Your task to perform on an android device: star an email in the gmail app Image 0: 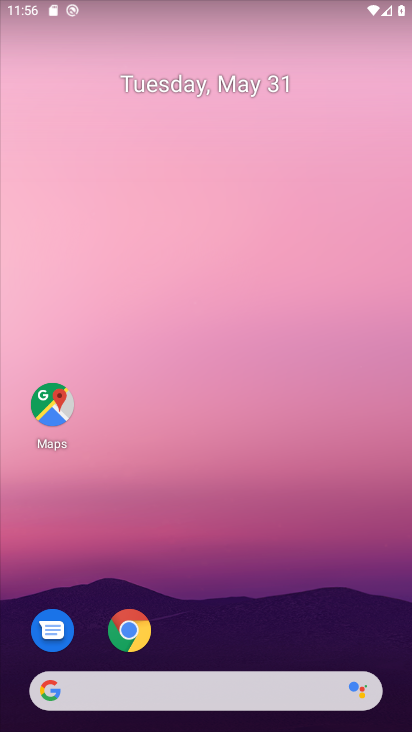
Step 0: drag from (207, 610) to (195, 171)
Your task to perform on an android device: star an email in the gmail app Image 1: 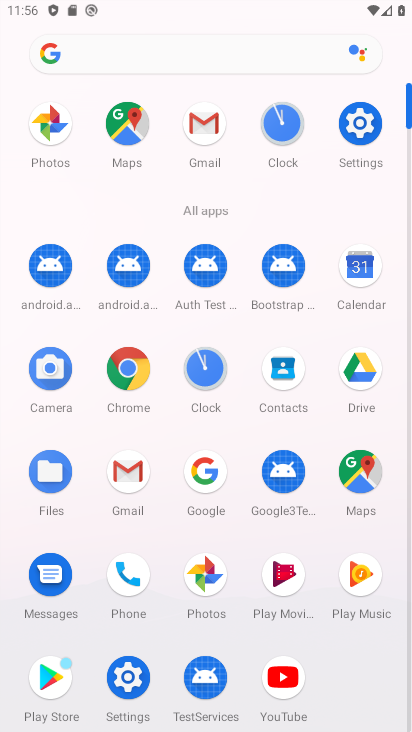
Step 1: click (133, 466)
Your task to perform on an android device: star an email in the gmail app Image 2: 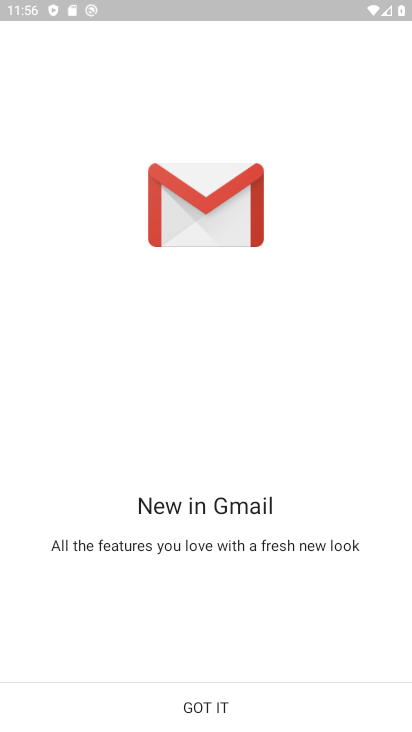
Step 2: click (223, 703)
Your task to perform on an android device: star an email in the gmail app Image 3: 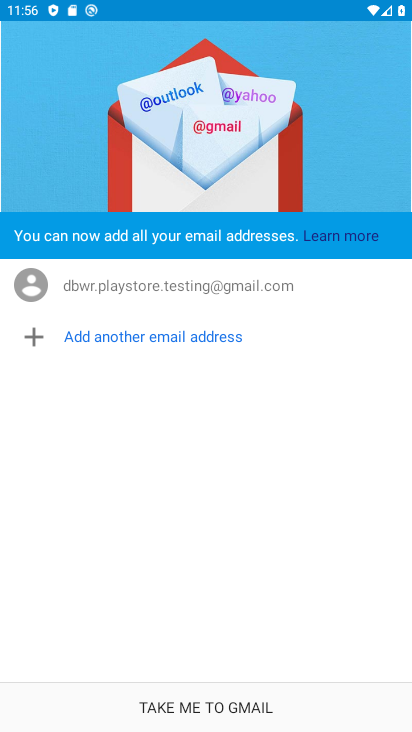
Step 3: click (218, 703)
Your task to perform on an android device: star an email in the gmail app Image 4: 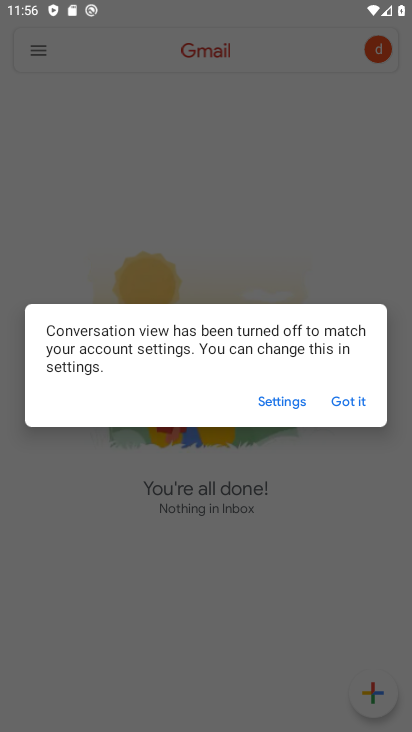
Step 4: click (340, 396)
Your task to perform on an android device: star an email in the gmail app Image 5: 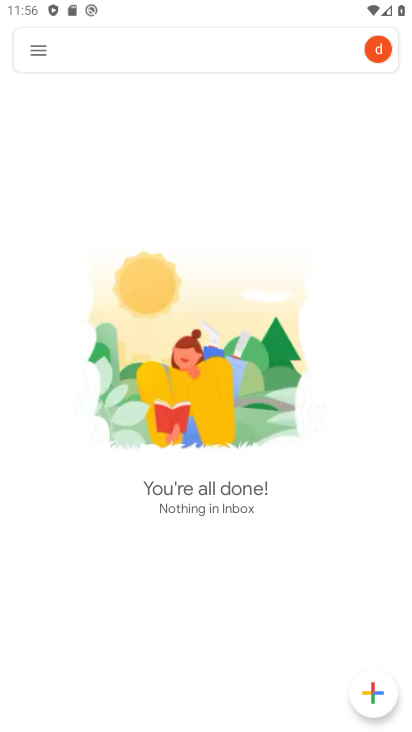
Step 5: click (42, 44)
Your task to perform on an android device: star an email in the gmail app Image 6: 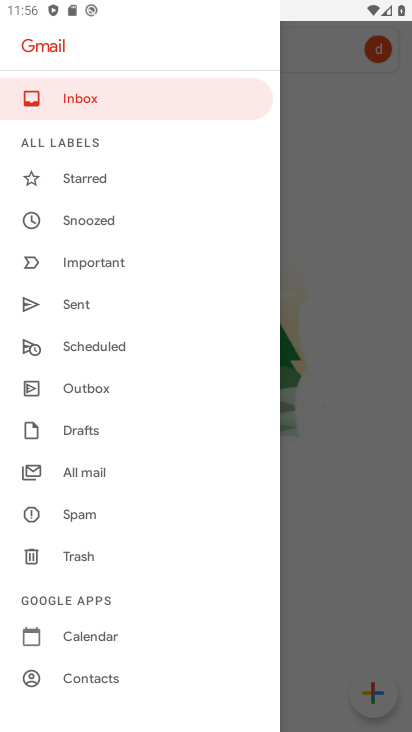
Step 6: drag from (110, 609) to (101, 401)
Your task to perform on an android device: star an email in the gmail app Image 7: 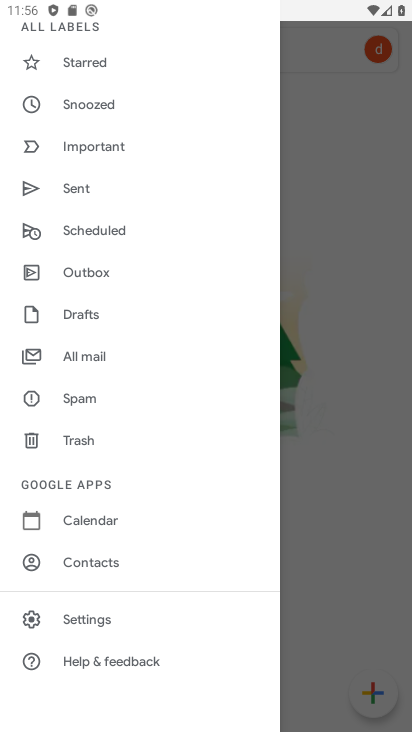
Step 7: click (92, 50)
Your task to perform on an android device: star an email in the gmail app Image 8: 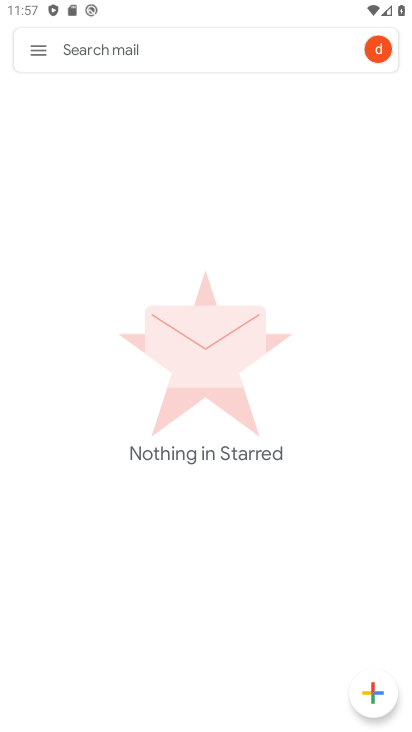
Step 8: task complete